Your task to perform on an android device: Go to Reddit.com Image 0: 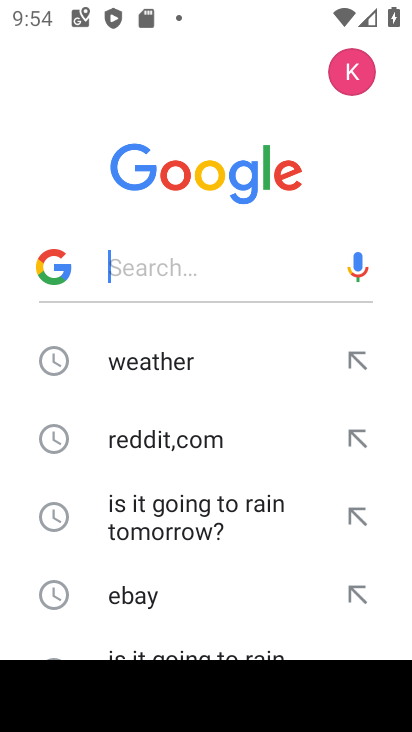
Step 0: press home button
Your task to perform on an android device: Go to Reddit.com Image 1: 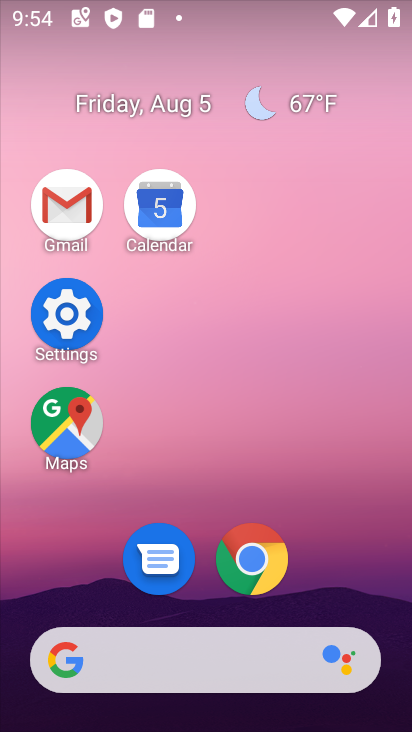
Step 1: click (271, 546)
Your task to perform on an android device: Go to Reddit.com Image 2: 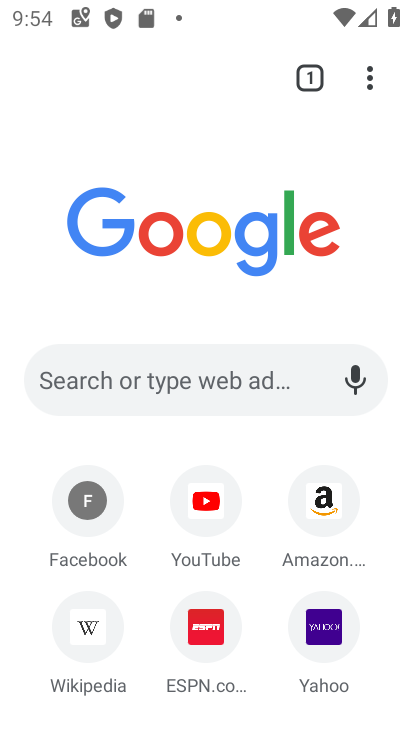
Step 2: click (209, 373)
Your task to perform on an android device: Go to Reddit.com Image 3: 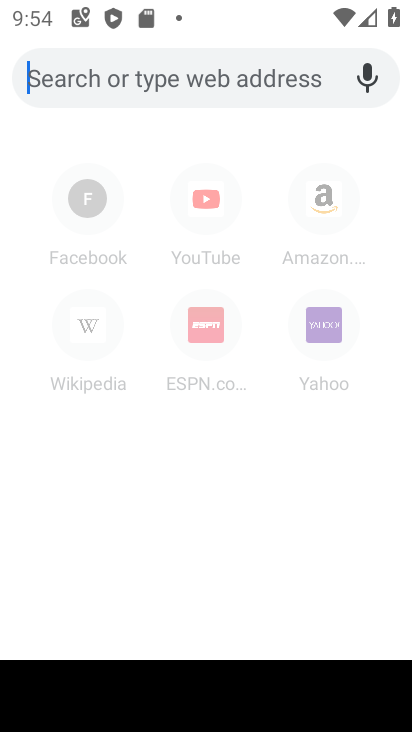
Step 3: type "reddit"
Your task to perform on an android device: Go to Reddit.com Image 4: 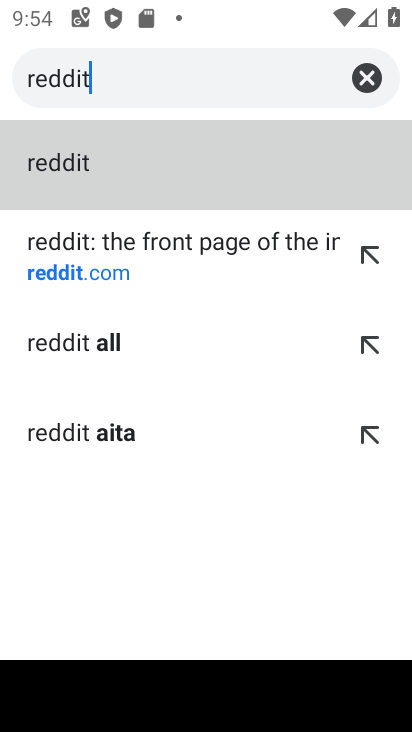
Step 4: click (90, 144)
Your task to perform on an android device: Go to Reddit.com Image 5: 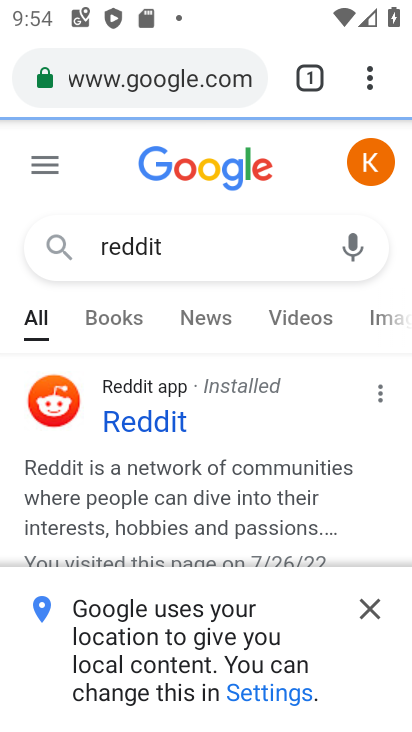
Step 5: click (120, 403)
Your task to perform on an android device: Go to Reddit.com Image 6: 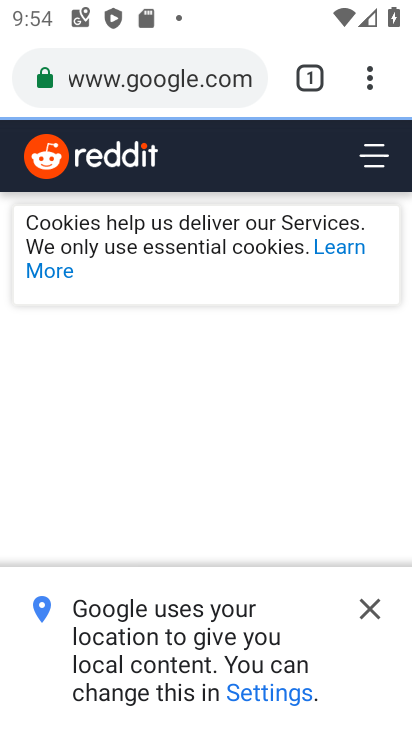
Step 6: task complete